Your task to perform on an android device: turn off wifi Image 0: 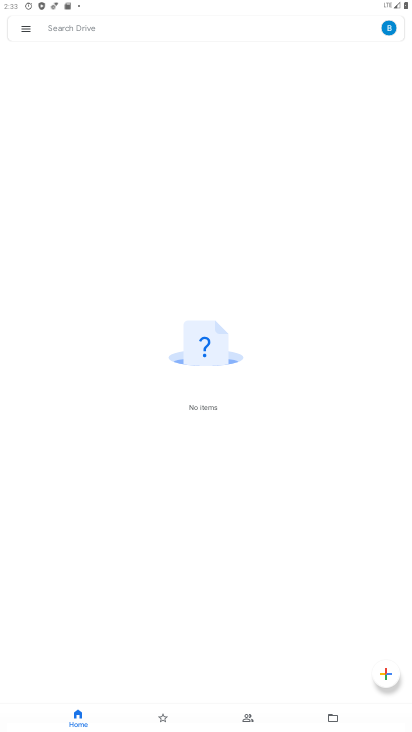
Step 0: drag from (128, 2) to (200, 385)
Your task to perform on an android device: turn off wifi Image 1: 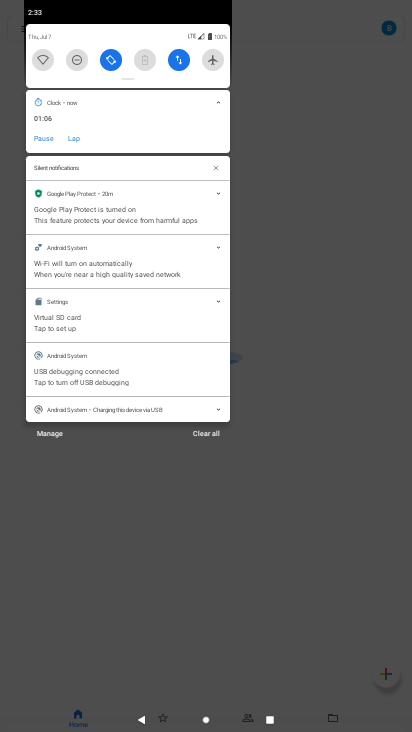
Step 1: click (40, 52)
Your task to perform on an android device: turn off wifi Image 2: 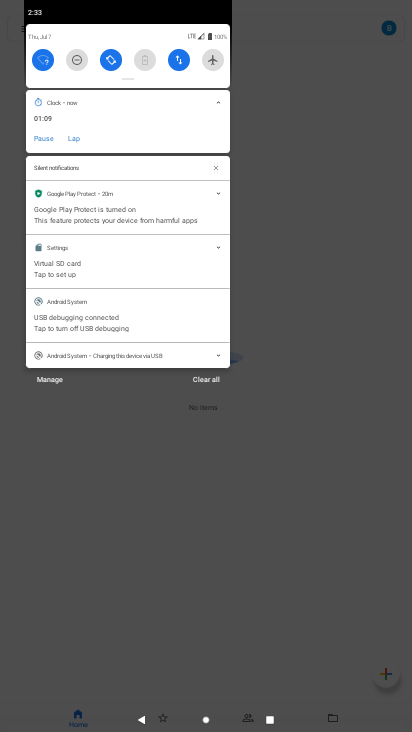
Step 2: task complete